Your task to perform on an android device: Go to settings Image 0: 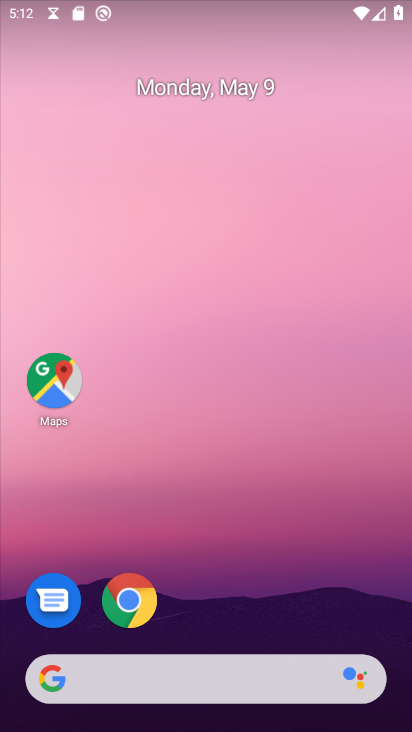
Step 0: drag from (123, 659) to (129, 93)
Your task to perform on an android device: Go to settings Image 1: 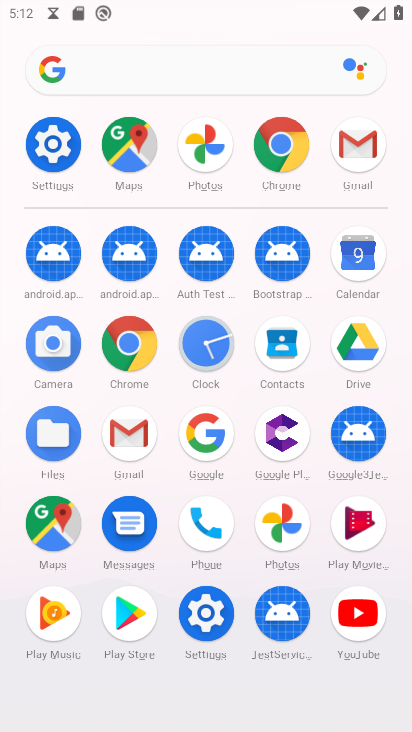
Step 1: click (203, 605)
Your task to perform on an android device: Go to settings Image 2: 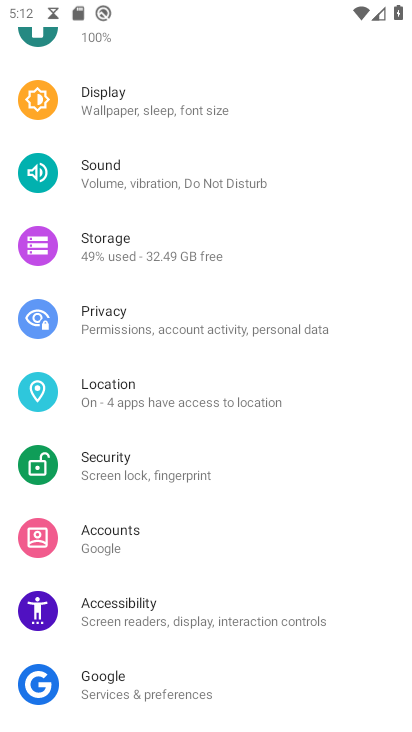
Step 2: task complete